Your task to perform on an android device: Go to ESPN.com Image 0: 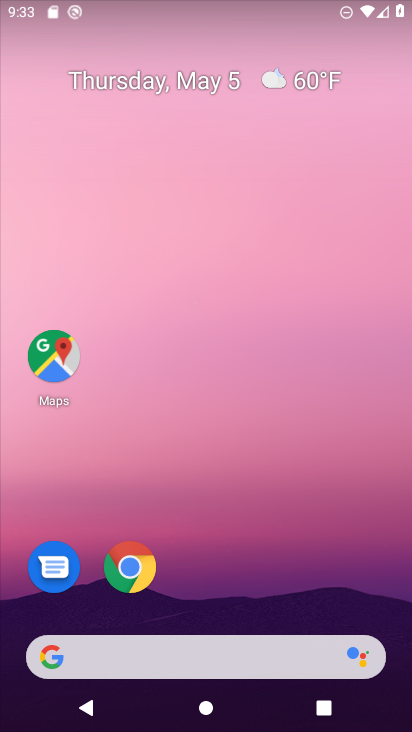
Step 0: click (127, 567)
Your task to perform on an android device: Go to ESPN.com Image 1: 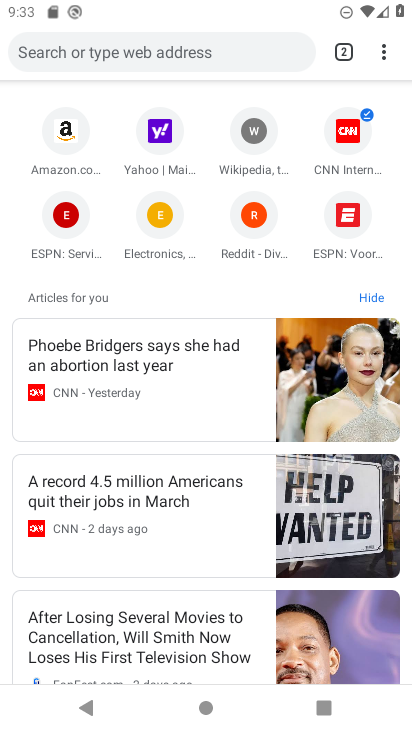
Step 1: click (180, 54)
Your task to perform on an android device: Go to ESPN.com Image 2: 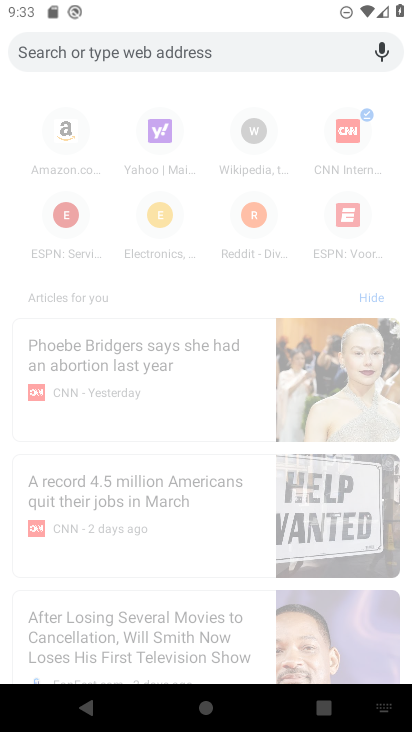
Step 2: type "ESPN.com"
Your task to perform on an android device: Go to ESPN.com Image 3: 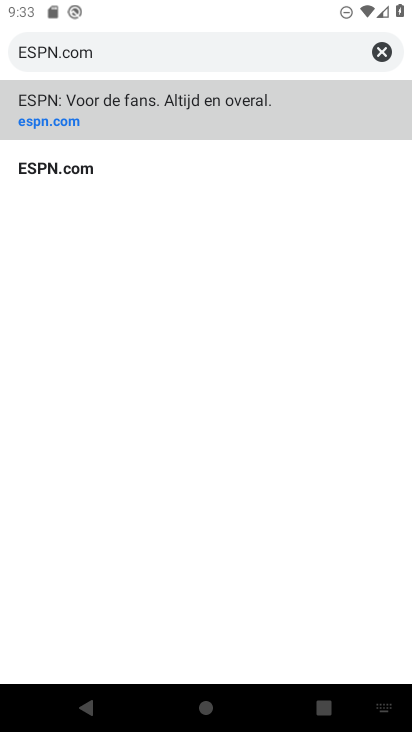
Step 3: click (156, 116)
Your task to perform on an android device: Go to ESPN.com Image 4: 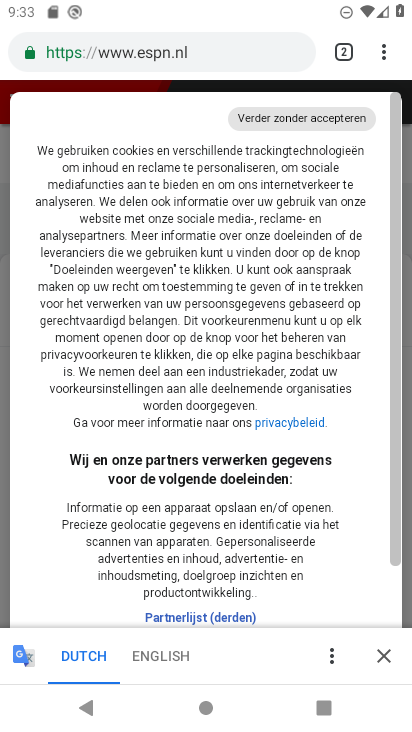
Step 4: task complete